Your task to perform on an android device: toggle notification dots Image 0: 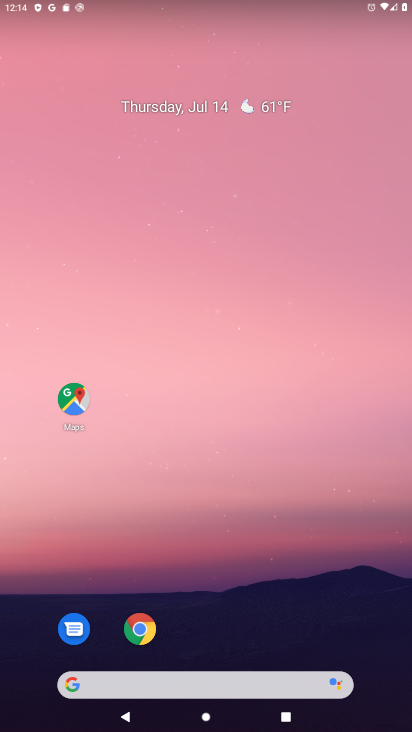
Step 0: drag from (246, 686) to (295, 250)
Your task to perform on an android device: toggle notification dots Image 1: 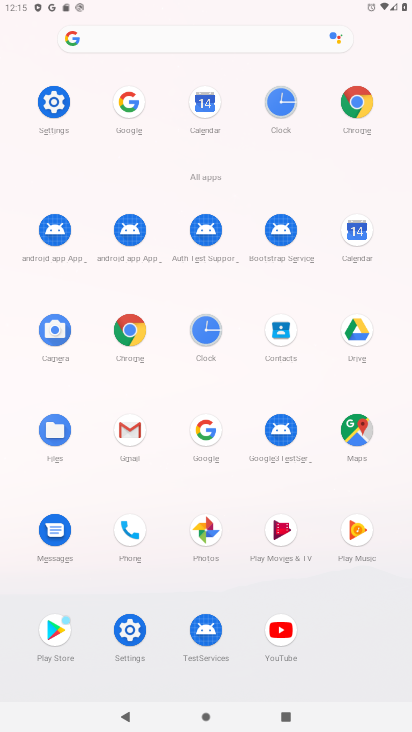
Step 1: click (131, 629)
Your task to perform on an android device: toggle notification dots Image 2: 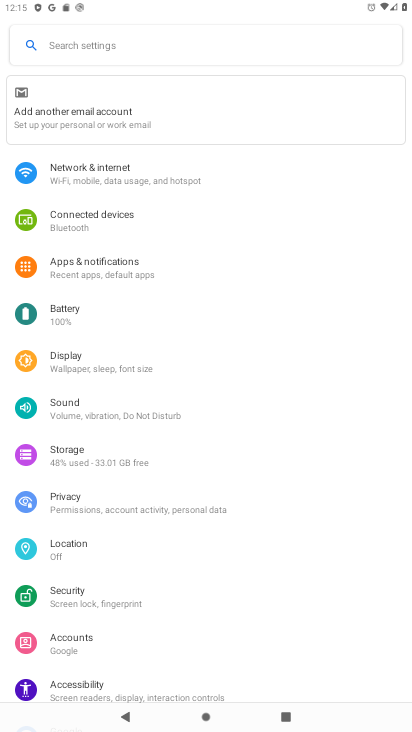
Step 2: click (97, 269)
Your task to perform on an android device: toggle notification dots Image 3: 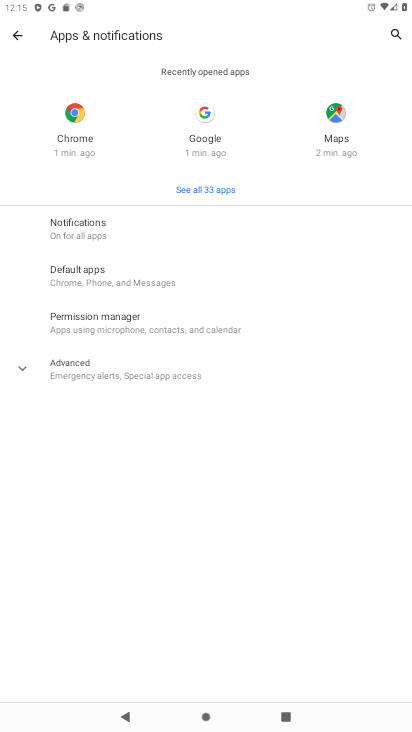
Step 3: click (84, 230)
Your task to perform on an android device: toggle notification dots Image 4: 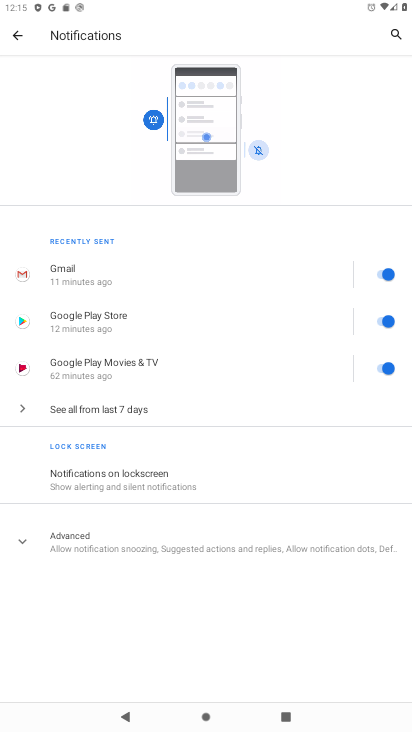
Step 4: click (118, 547)
Your task to perform on an android device: toggle notification dots Image 5: 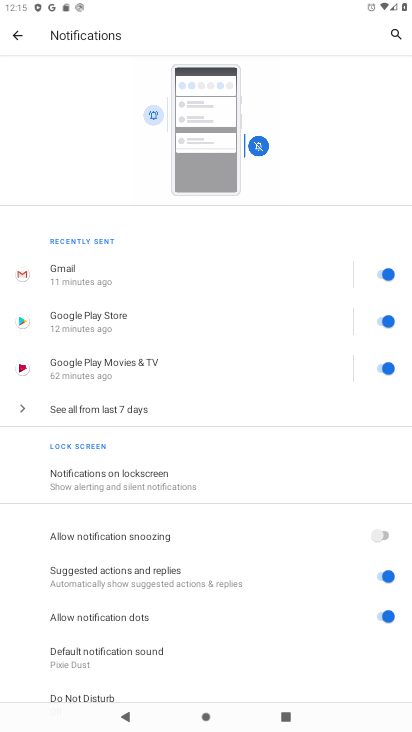
Step 5: click (385, 616)
Your task to perform on an android device: toggle notification dots Image 6: 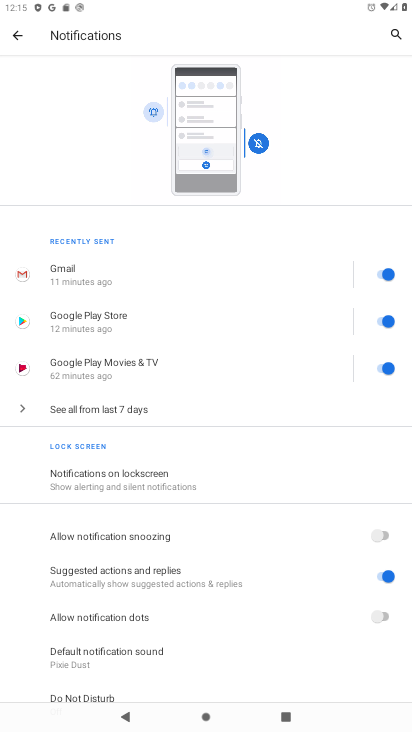
Step 6: task complete